Your task to perform on an android device: Search for pizza restaurants on Maps Image 0: 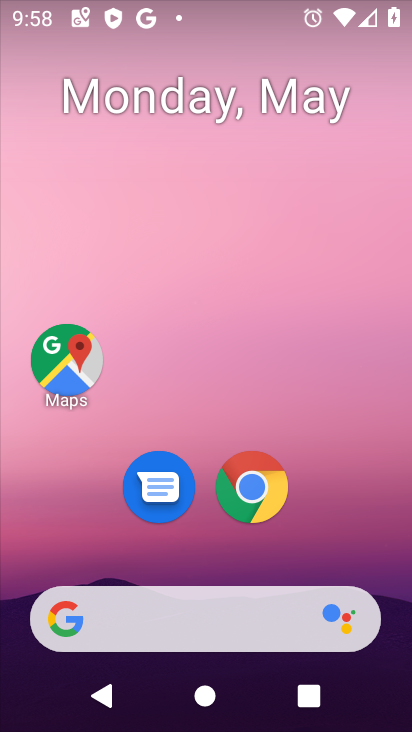
Step 0: click (68, 325)
Your task to perform on an android device: Search for pizza restaurants on Maps Image 1: 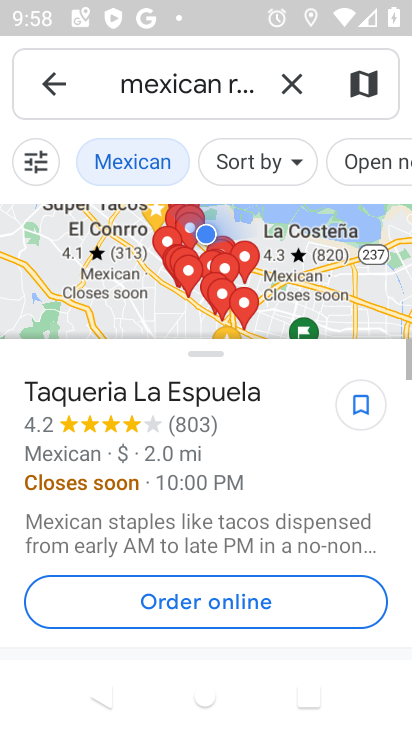
Step 1: click (289, 95)
Your task to perform on an android device: Search for pizza restaurants on Maps Image 2: 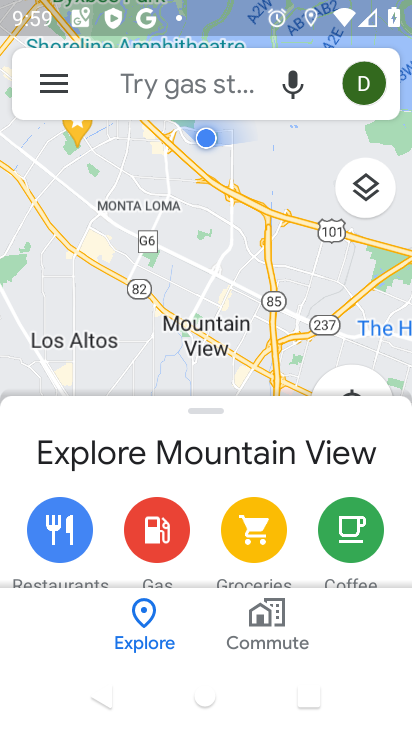
Step 2: click (147, 97)
Your task to perform on an android device: Search for pizza restaurants on Maps Image 3: 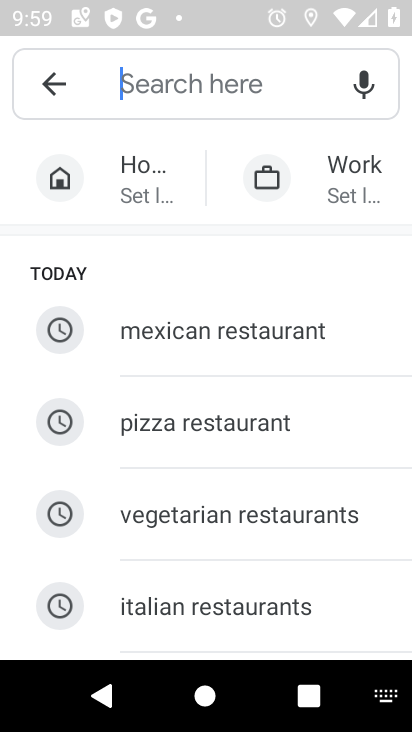
Step 3: click (160, 436)
Your task to perform on an android device: Search for pizza restaurants on Maps Image 4: 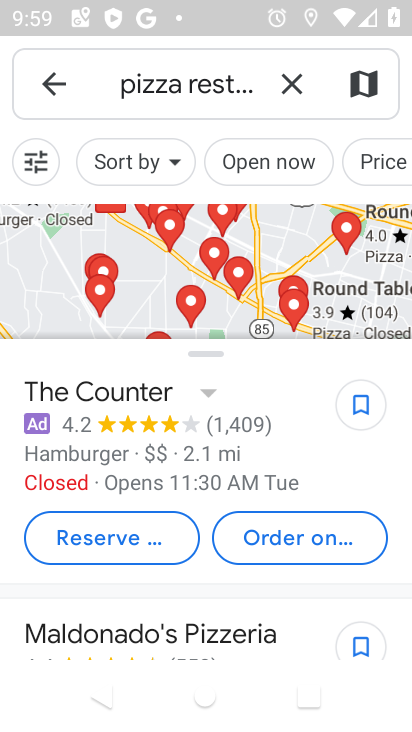
Step 4: task complete